Your task to perform on an android device: Find coffee shops on Maps Image 0: 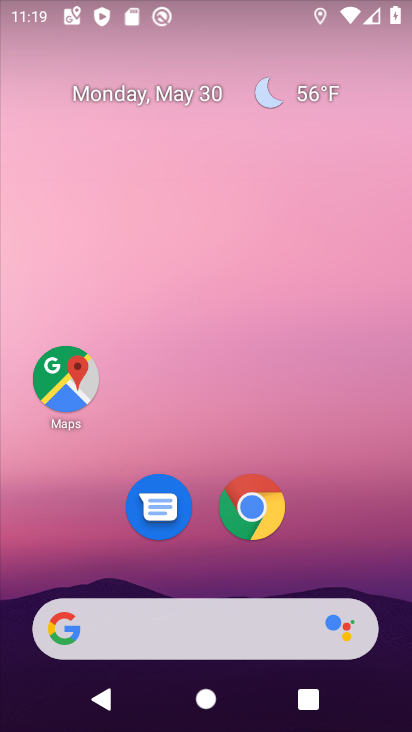
Step 0: click (56, 382)
Your task to perform on an android device: Find coffee shops on Maps Image 1: 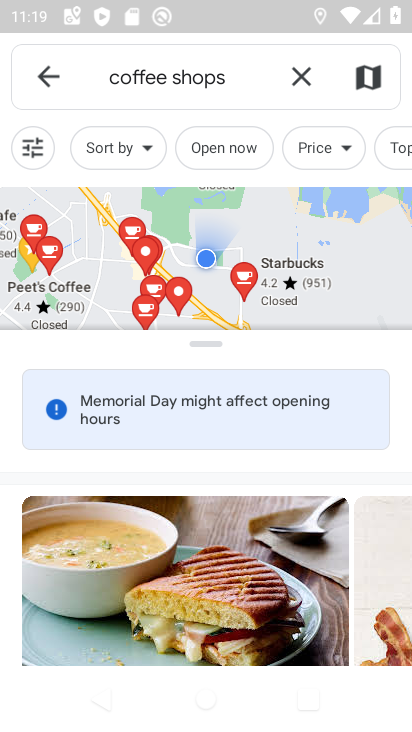
Step 1: task complete